Your task to perform on an android device: turn notification dots on Image 0: 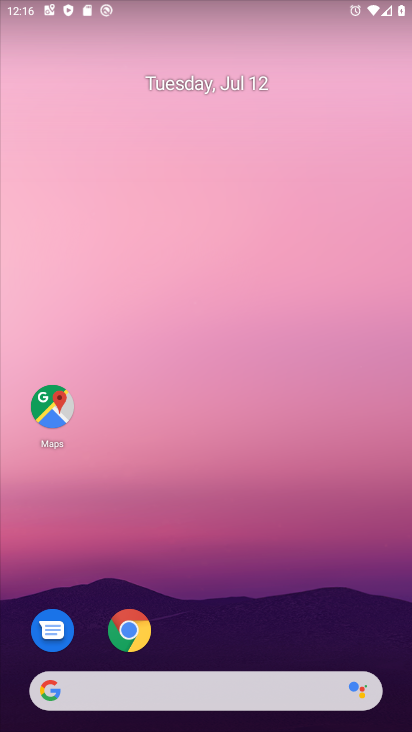
Step 0: drag from (220, 693) to (306, 117)
Your task to perform on an android device: turn notification dots on Image 1: 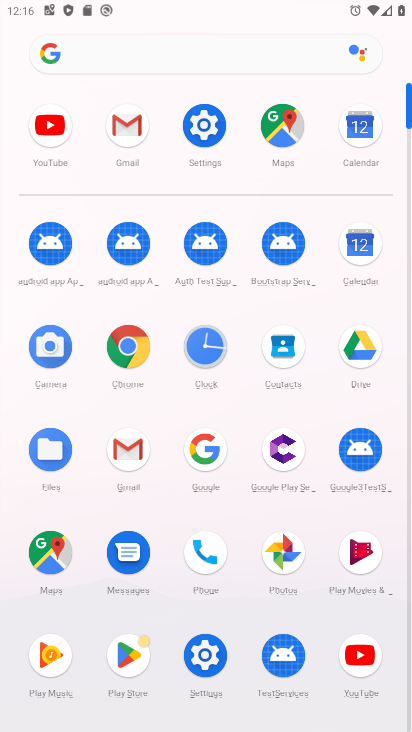
Step 1: click (205, 123)
Your task to perform on an android device: turn notification dots on Image 2: 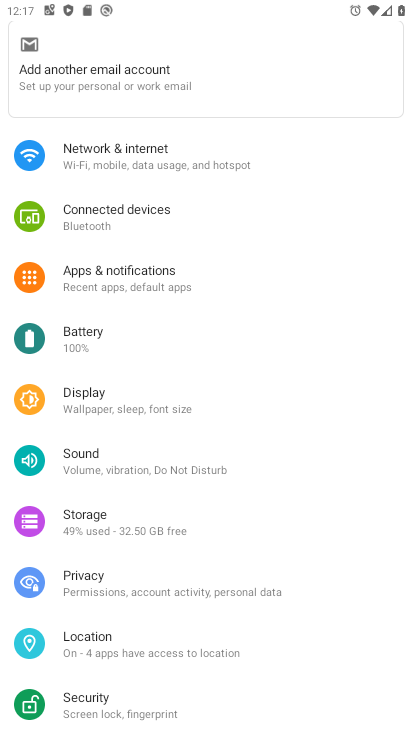
Step 2: click (123, 273)
Your task to perform on an android device: turn notification dots on Image 3: 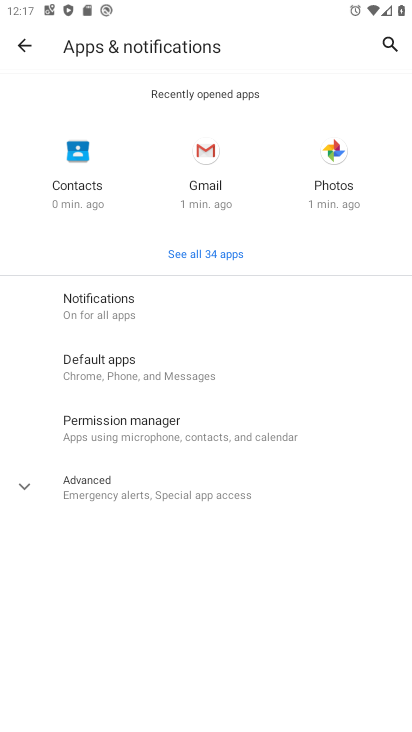
Step 3: click (103, 310)
Your task to perform on an android device: turn notification dots on Image 4: 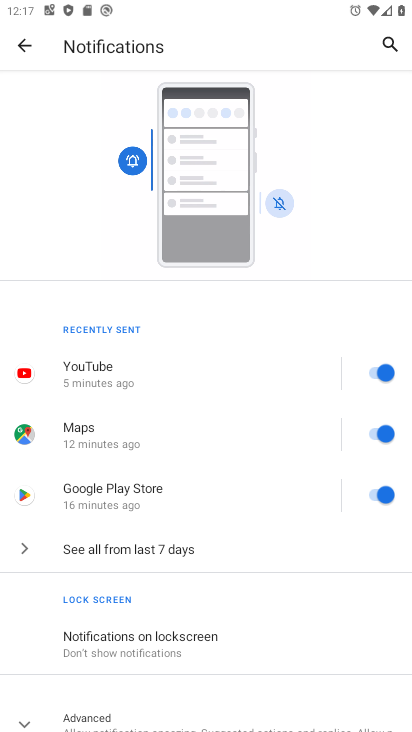
Step 4: drag from (170, 593) to (205, 461)
Your task to perform on an android device: turn notification dots on Image 5: 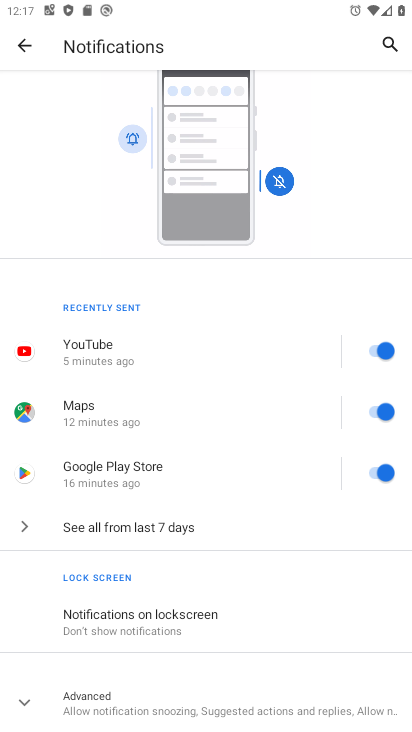
Step 5: click (129, 705)
Your task to perform on an android device: turn notification dots on Image 6: 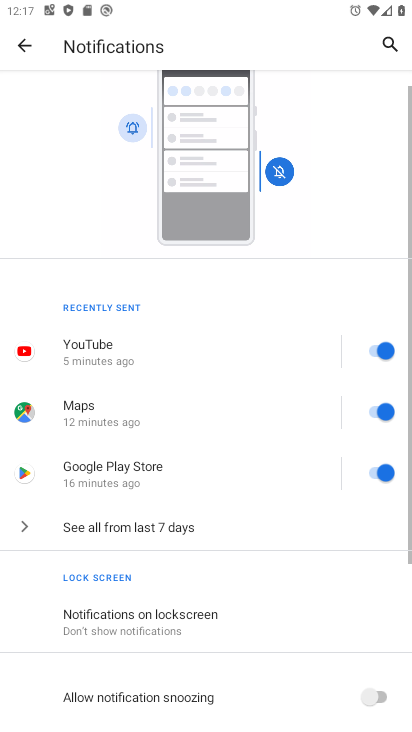
Step 6: task complete